Your task to perform on an android device: uninstall "File Manager" Image 0: 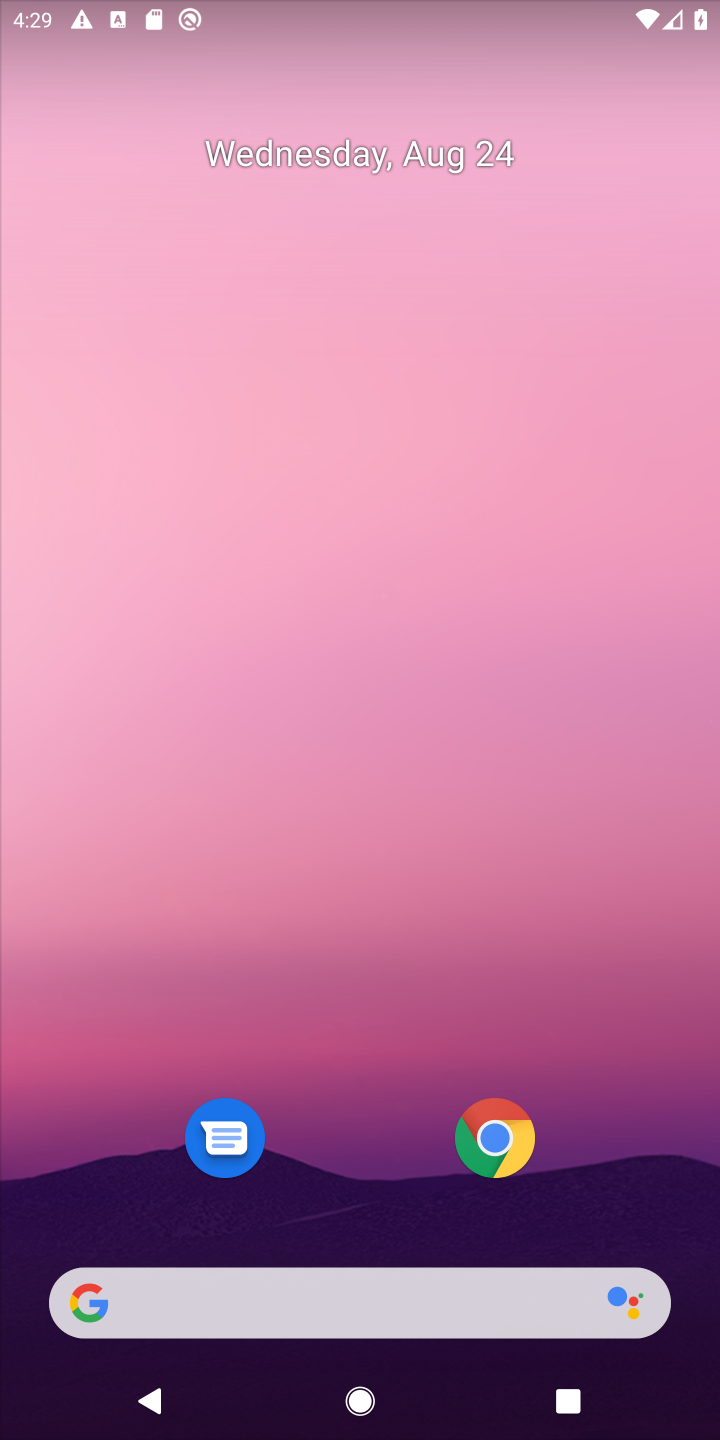
Step 0: drag from (343, 1213) to (393, 89)
Your task to perform on an android device: uninstall "File Manager" Image 1: 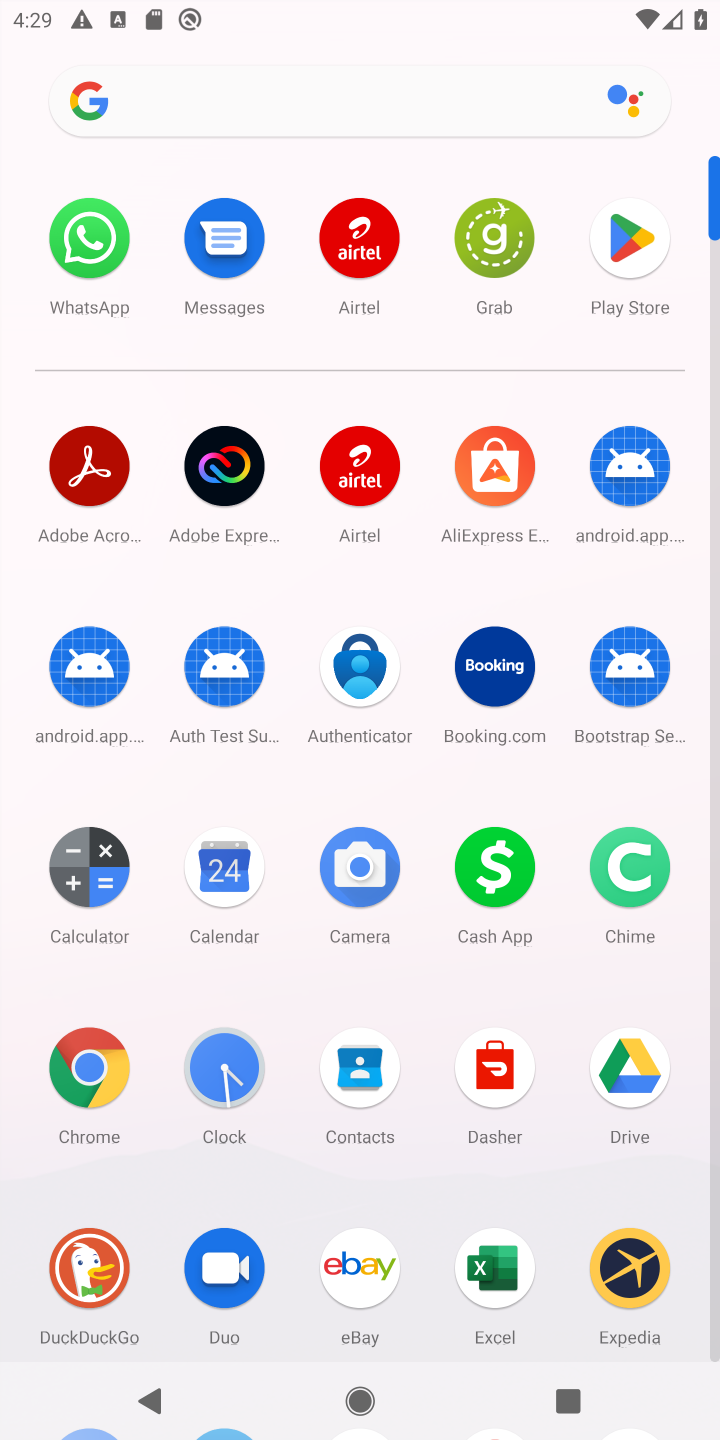
Step 1: drag from (440, 860) to (453, 492)
Your task to perform on an android device: uninstall "File Manager" Image 2: 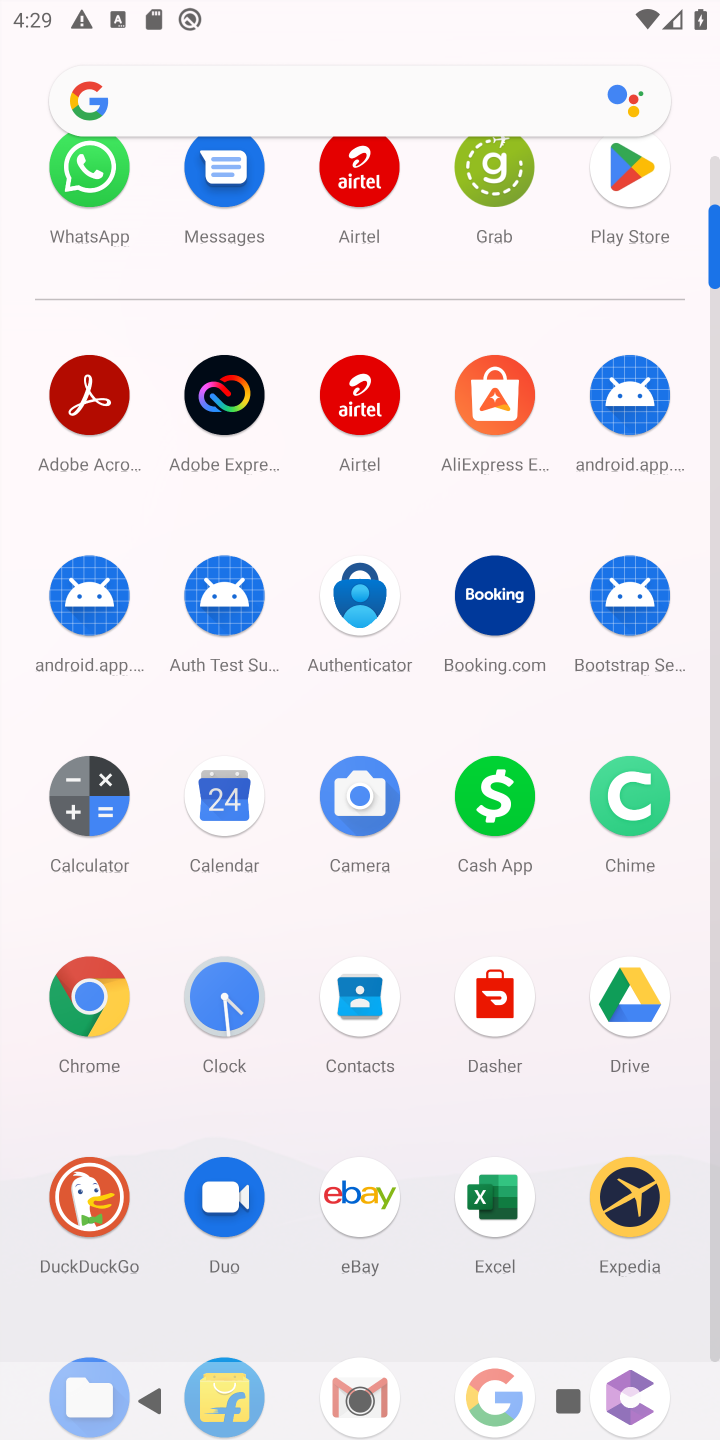
Step 2: click (643, 173)
Your task to perform on an android device: uninstall "File Manager" Image 3: 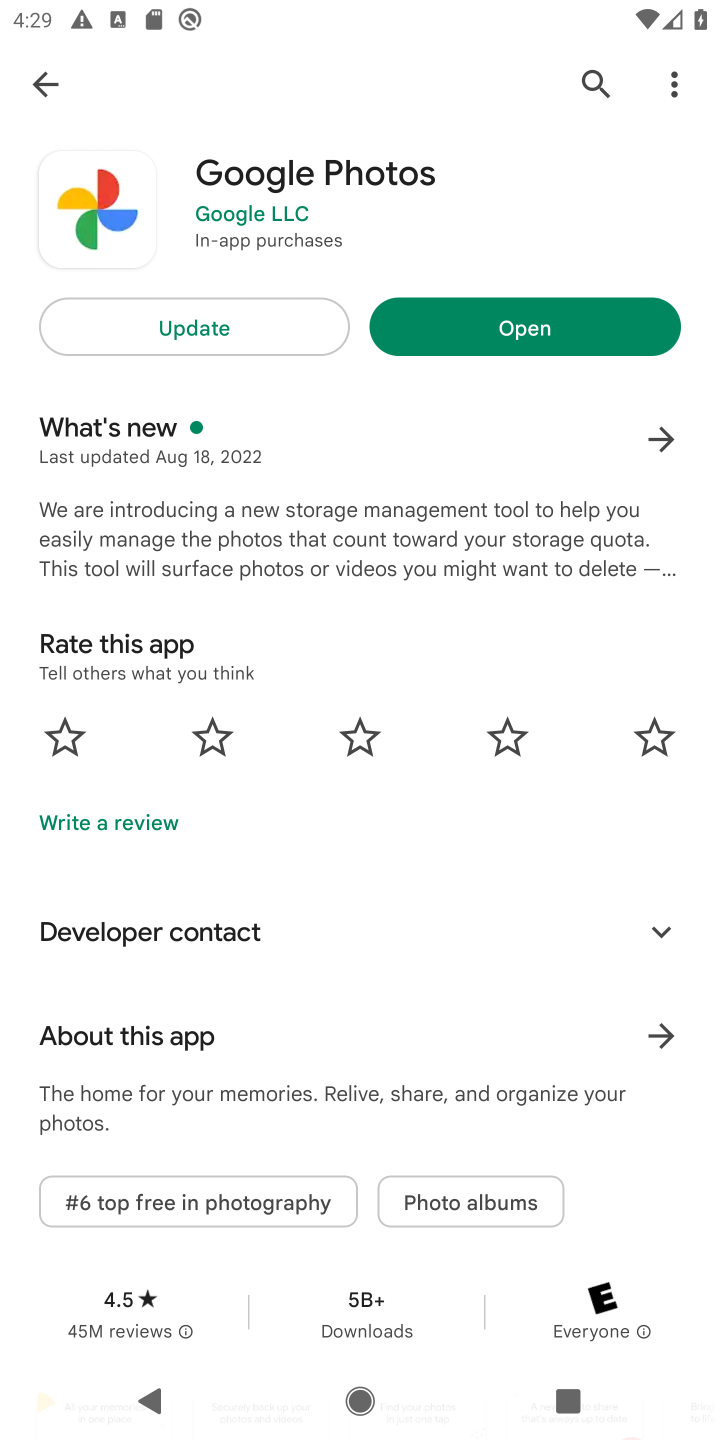
Step 3: click (601, 80)
Your task to perform on an android device: uninstall "File Manager" Image 4: 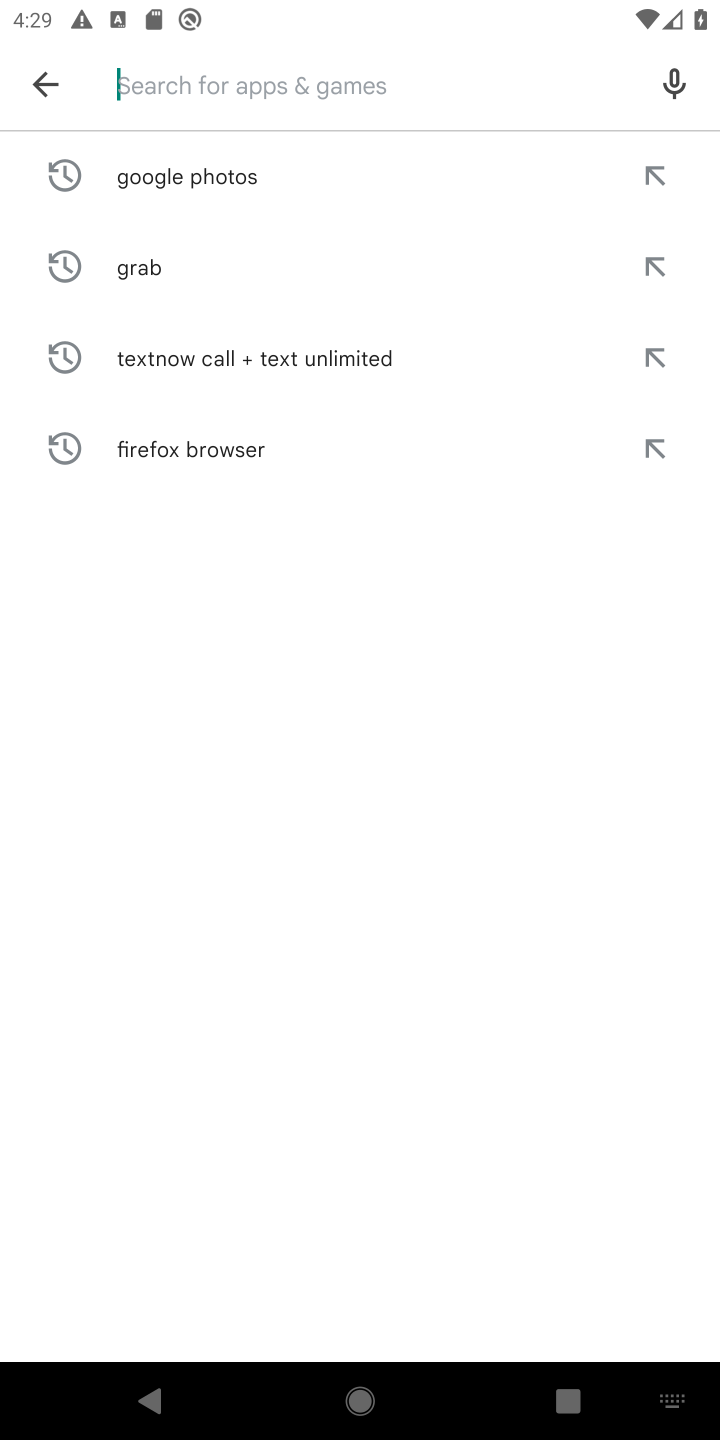
Step 4: type "File Manager"
Your task to perform on an android device: uninstall "File Manager" Image 5: 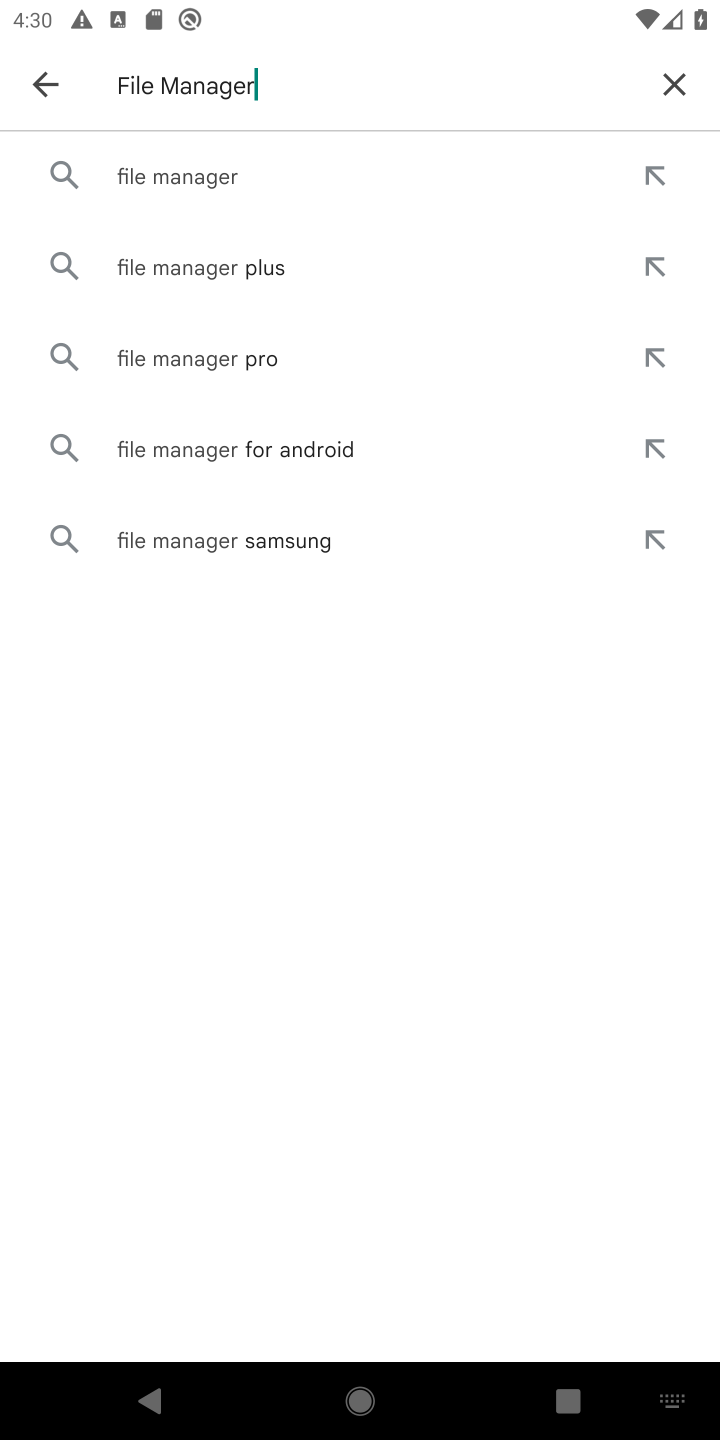
Step 5: click (152, 166)
Your task to perform on an android device: uninstall "File Manager" Image 6: 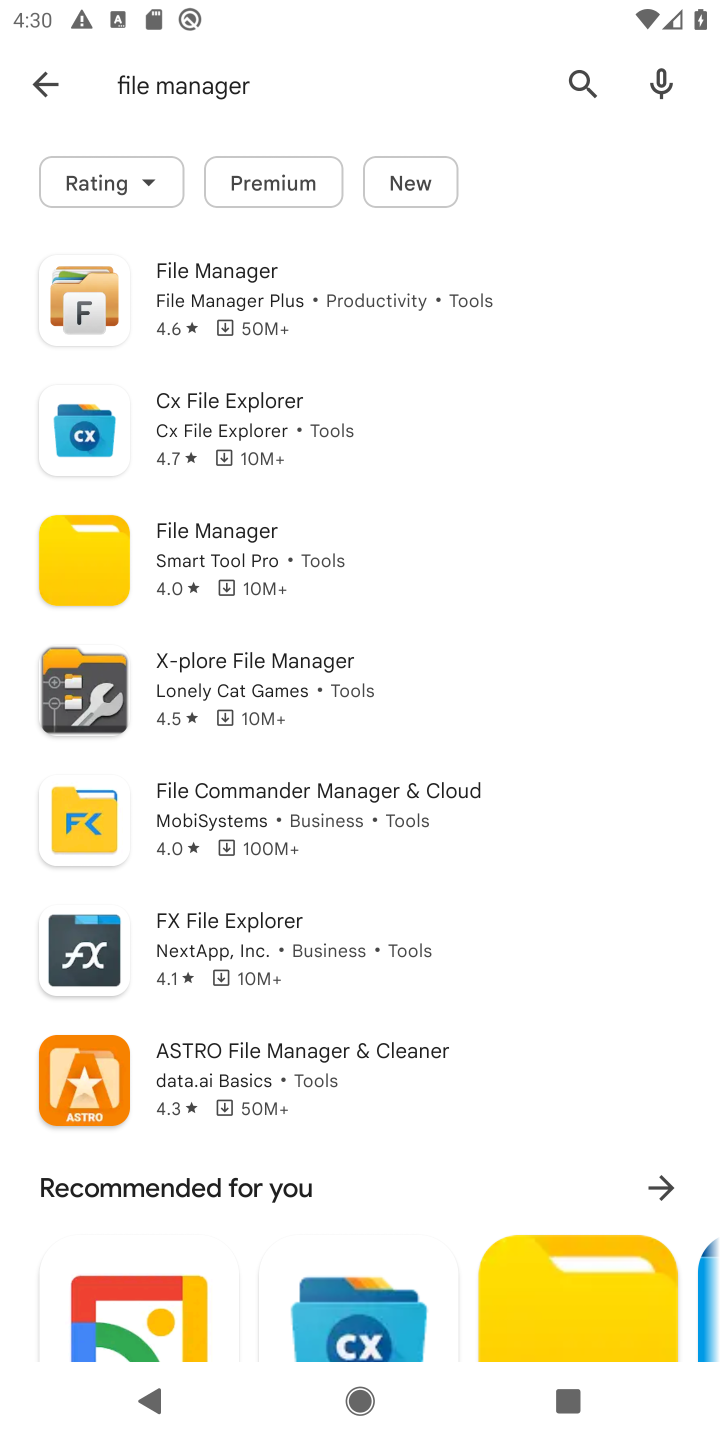
Step 6: click (237, 259)
Your task to perform on an android device: uninstall "File Manager" Image 7: 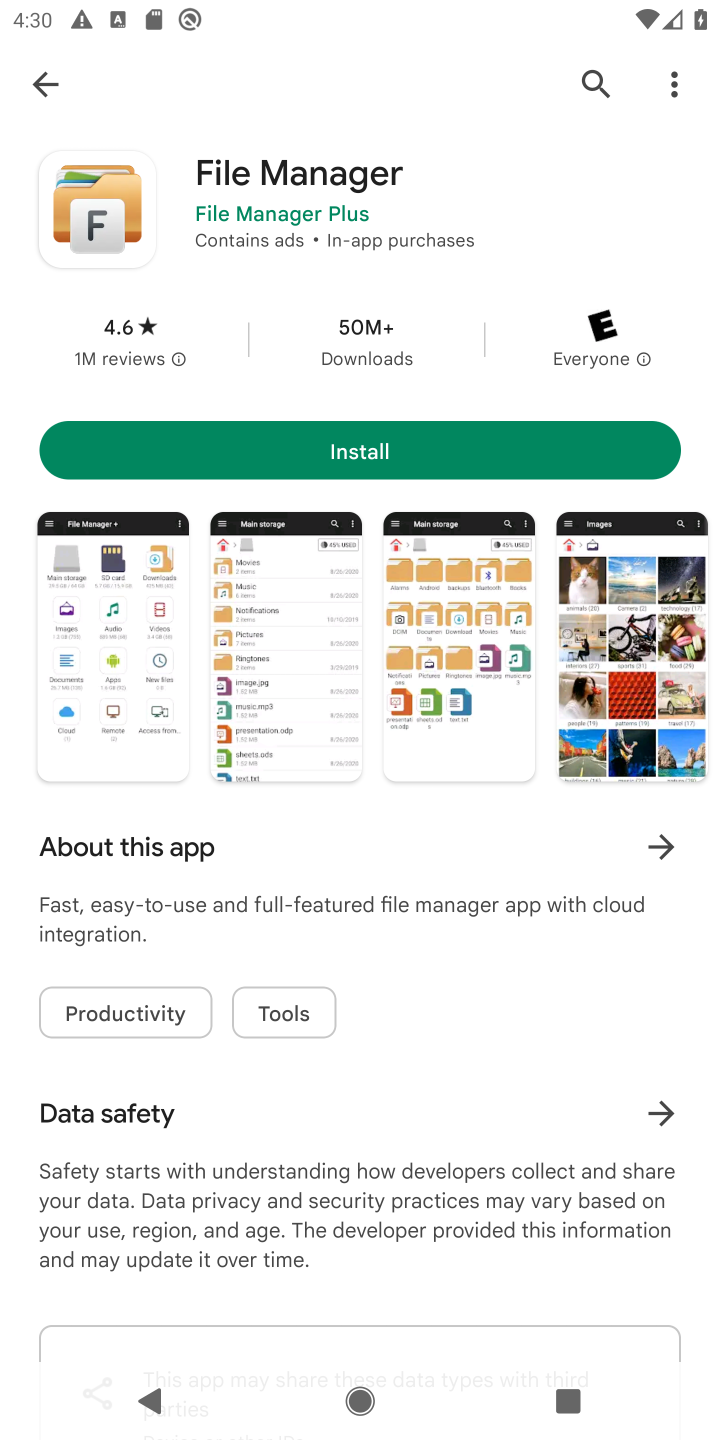
Step 7: task complete